Your task to perform on an android device: What is the news today? Image 0: 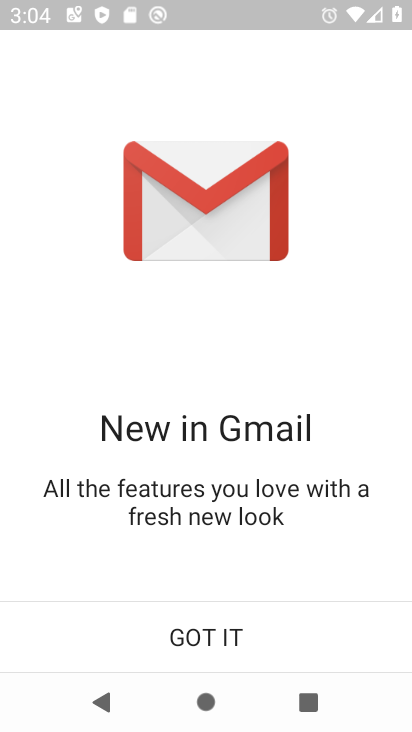
Step 0: press home button
Your task to perform on an android device: What is the news today? Image 1: 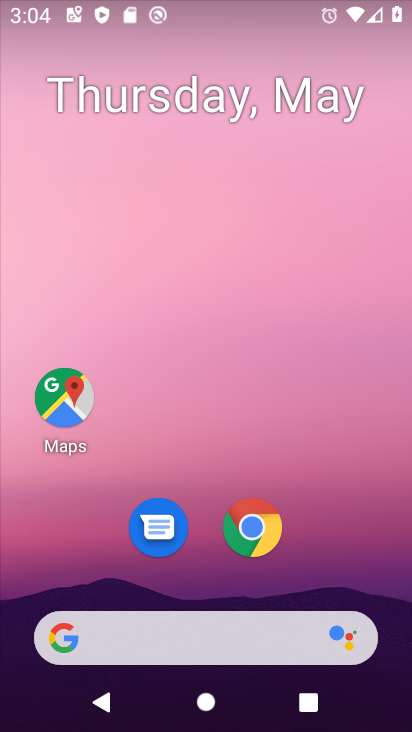
Step 1: task complete